Your task to perform on an android device: Open Reddit.com Image 0: 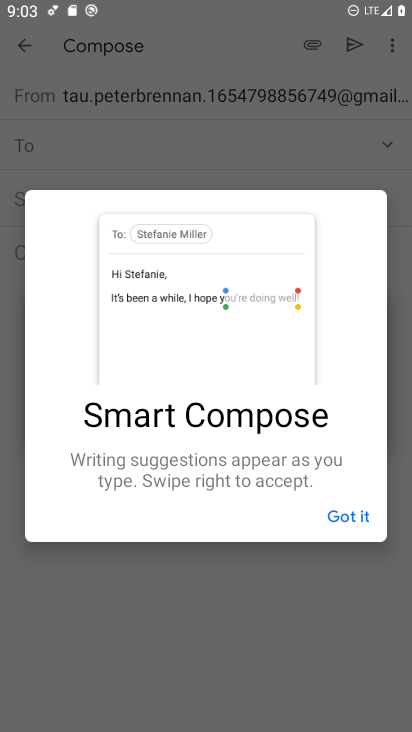
Step 0: press home button
Your task to perform on an android device: Open Reddit.com Image 1: 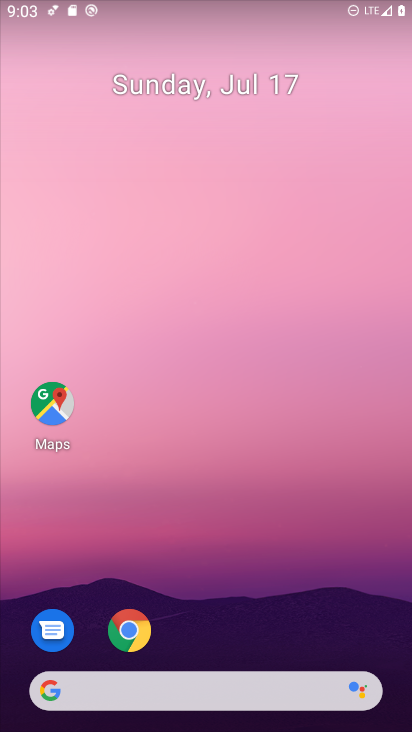
Step 1: click (143, 649)
Your task to perform on an android device: Open Reddit.com Image 2: 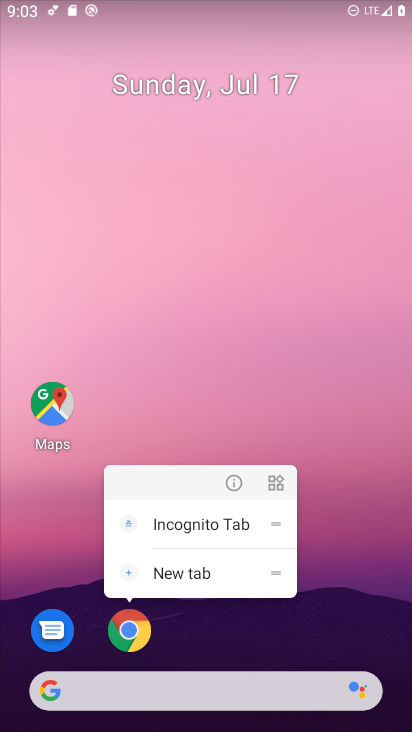
Step 2: click (130, 634)
Your task to perform on an android device: Open Reddit.com Image 3: 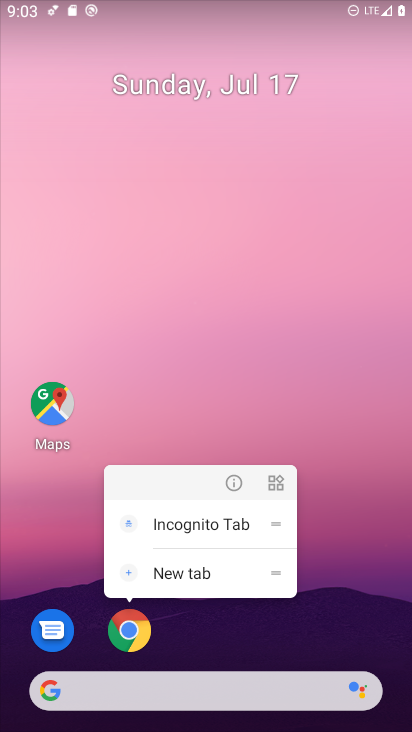
Step 3: click (146, 642)
Your task to perform on an android device: Open Reddit.com Image 4: 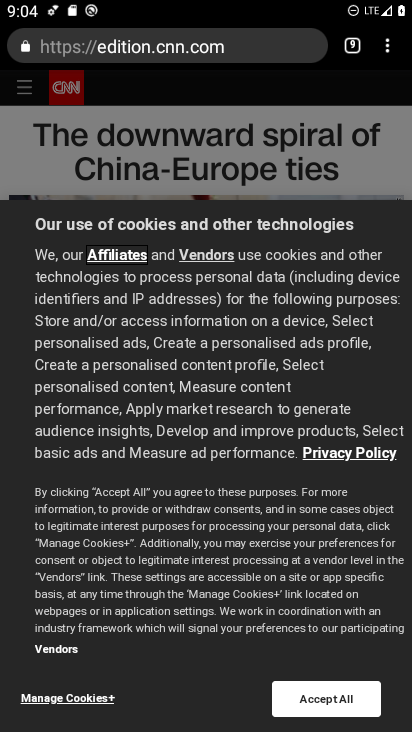
Step 4: click (397, 45)
Your task to perform on an android device: Open Reddit.com Image 5: 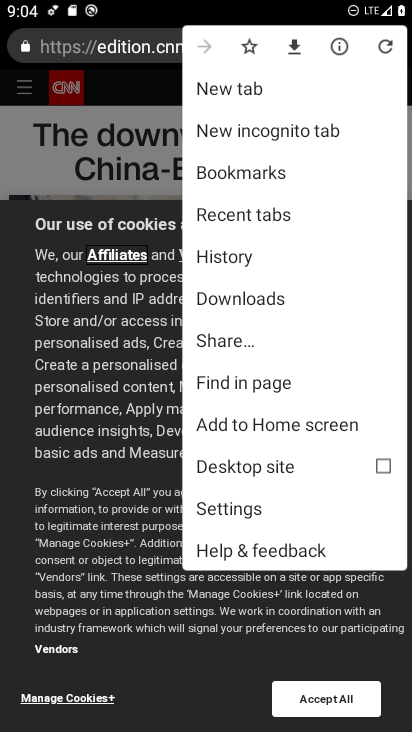
Step 5: click (259, 85)
Your task to perform on an android device: Open Reddit.com Image 6: 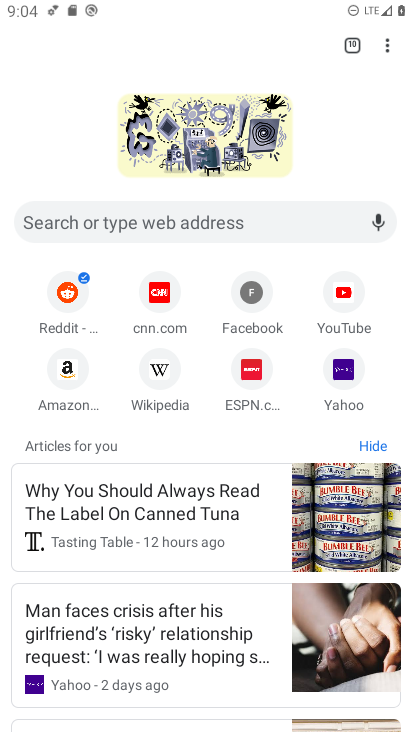
Step 6: click (62, 298)
Your task to perform on an android device: Open Reddit.com Image 7: 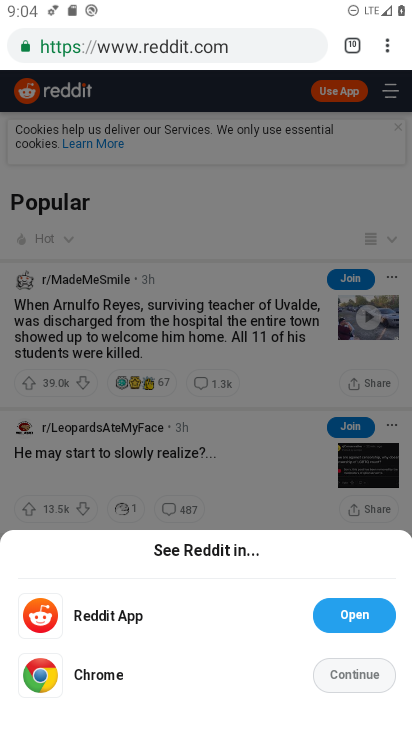
Step 7: task complete